Your task to perform on an android device: Open Wikipedia Image 0: 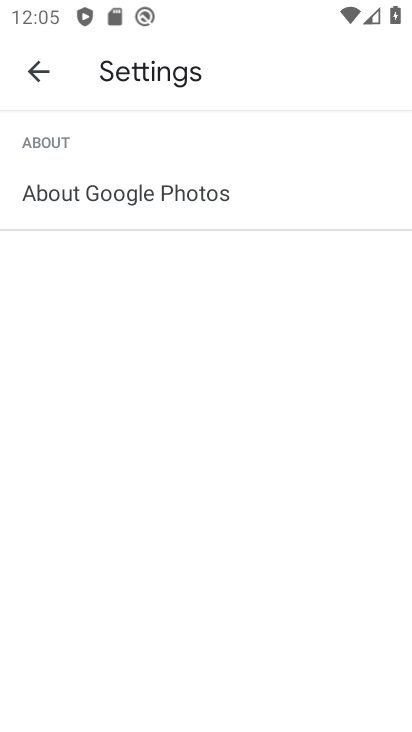
Step 0: press home button
Your task to perform on an android device: Open Wikipedia Image 1: 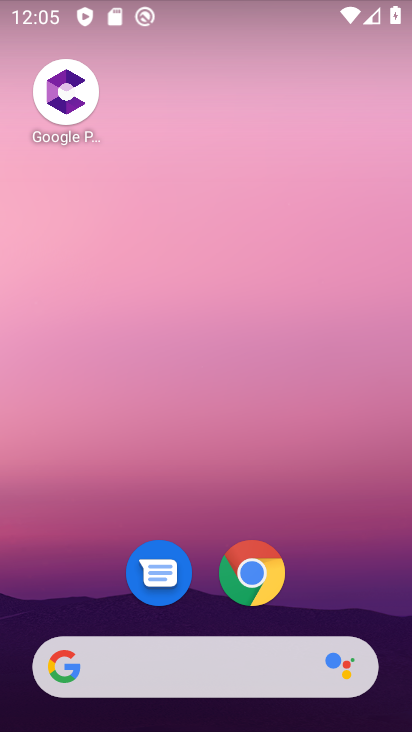
Step 1: click (244, 577)
Your task to perform on an android device: Open Wikipedia Image 2: 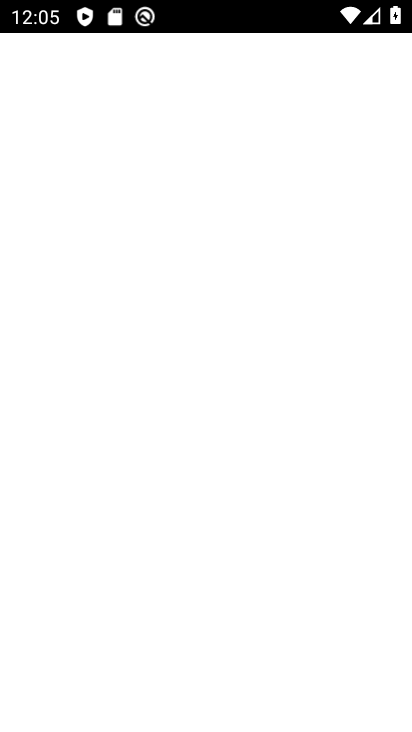
Step 2: click (252, 568)
Your task to perform on an android device: Open Wikipedia Image 3: 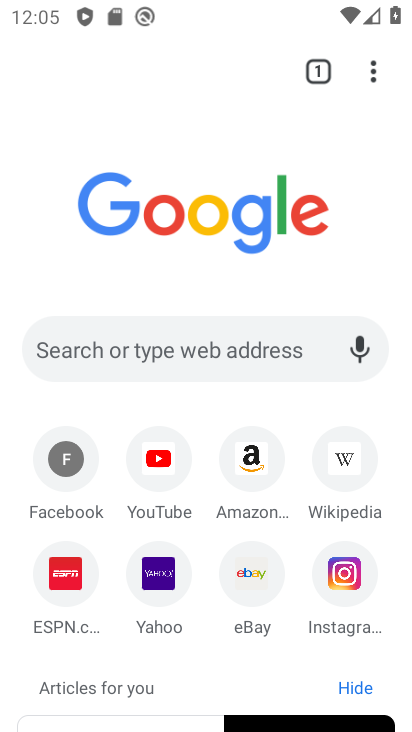
Step 3: click (372, 83)
Your task to perform on an android device: Open Wikipedia Image 4: 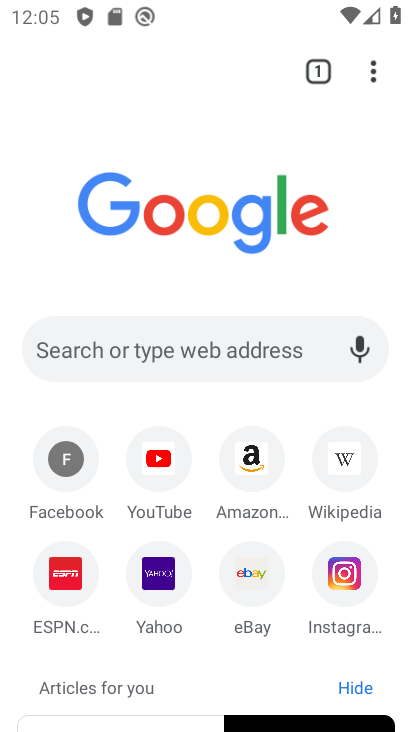
Step 4: click (151, 345)
Your task to perform on an android device: Open Wikipedia Image 5: 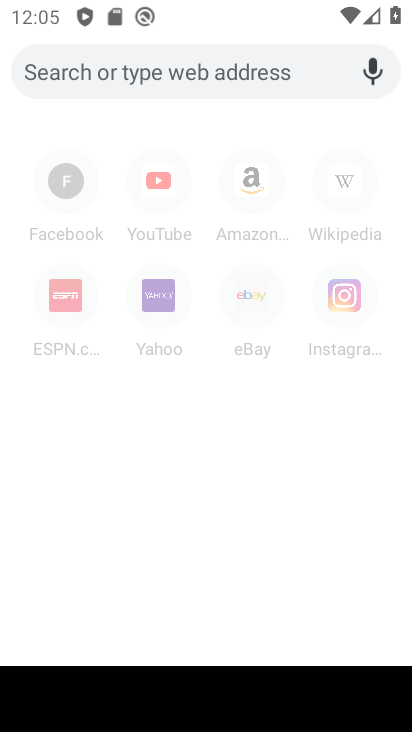
Step 5: type "wikipedia"
Your task to perform on an android device: Open Wikipedia Image 6: 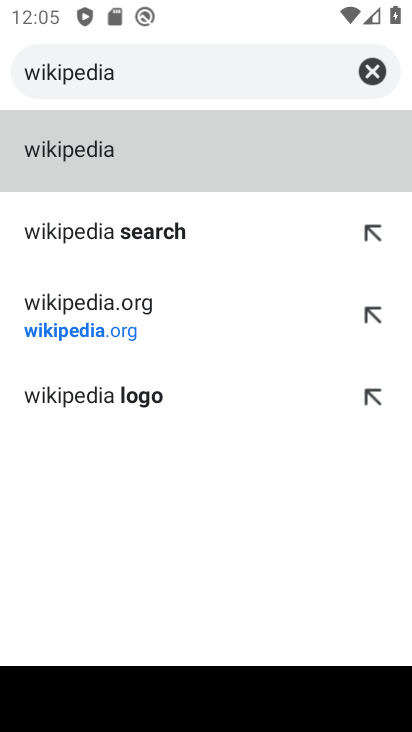
Step 6: click (39, 141)
Your task to perform on an android device: Open Wikipedia Image 7: 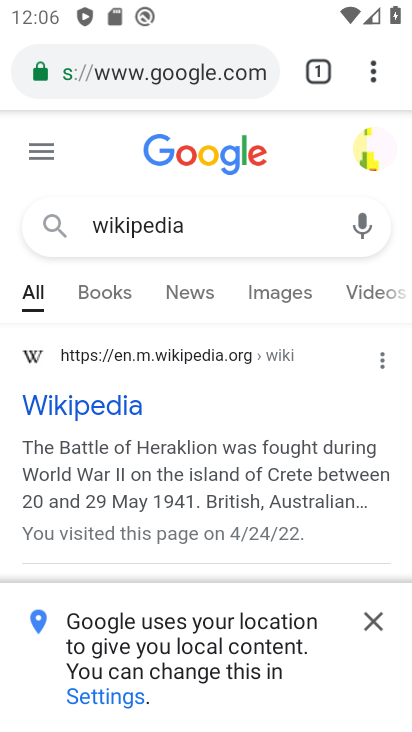
Step 7: click (80, 407)
Your task to perform on an android device: Open Wikipedia Image 8: 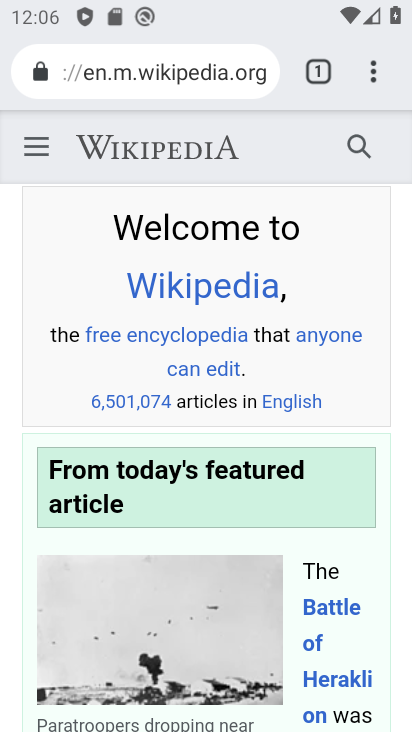
Step 8: task complete